Your task to perform on an android device: add a label to a message in the gmail app Image 0: 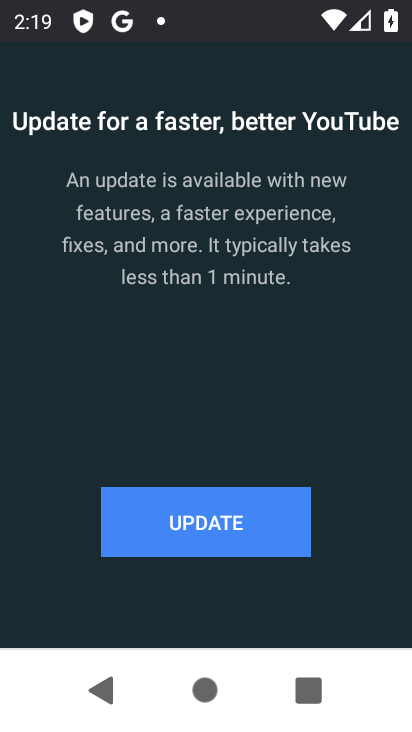
Step 0: press home button
Your task to perform on an android device: add a label to a message in the gmail app Image 1: 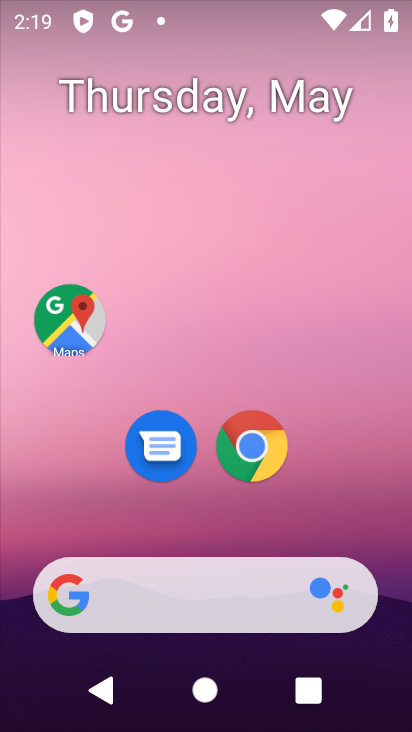
Step 1: drag from (206, 533) to (218, 0)
Your task to perform on an android device: add a label to a message in the gmail app Image 2: 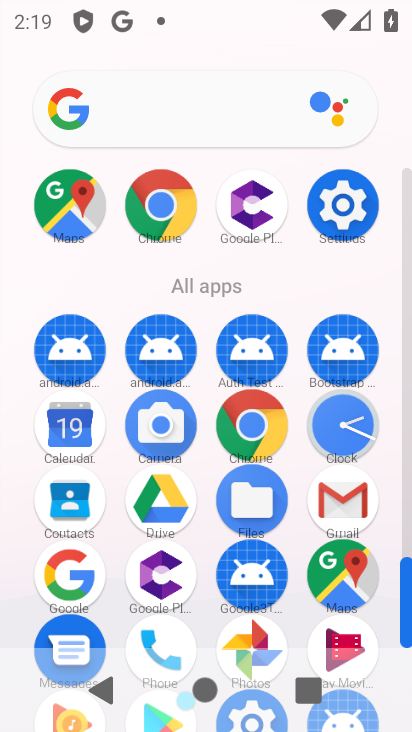
Step 2: click (333, 510)
Your task to perform on an android device: add a label to a message in the gmail app Image 3: 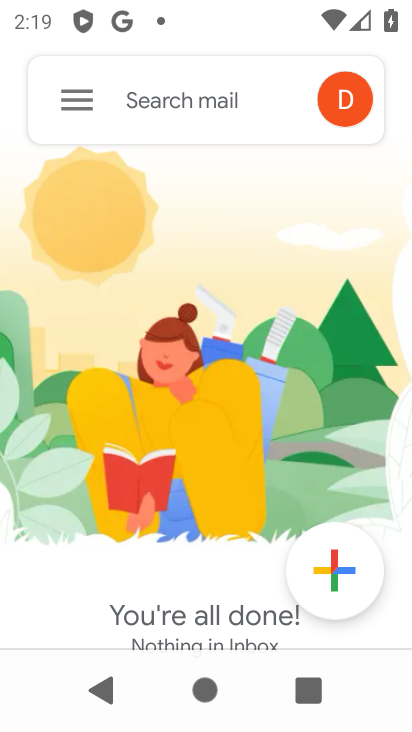
Step 3: click (69, 109)
Your task to perform on an android device: add a label to a message in the gmail app Image 4: 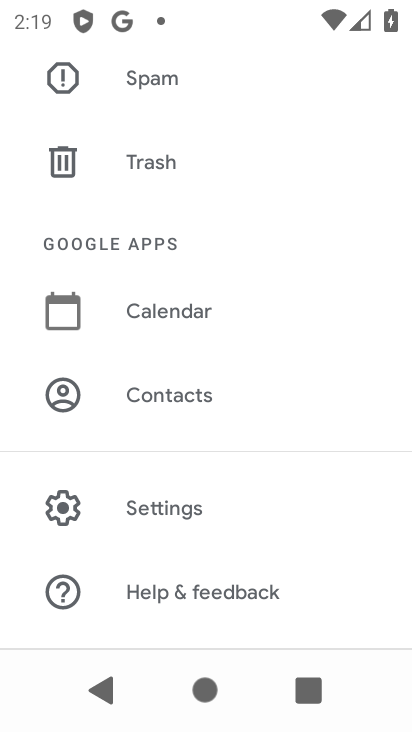
Step 4: drag from (158, 83) to (113, 304)
Your task to perform on an android device: add a label to a message in the gmail app Image 5: 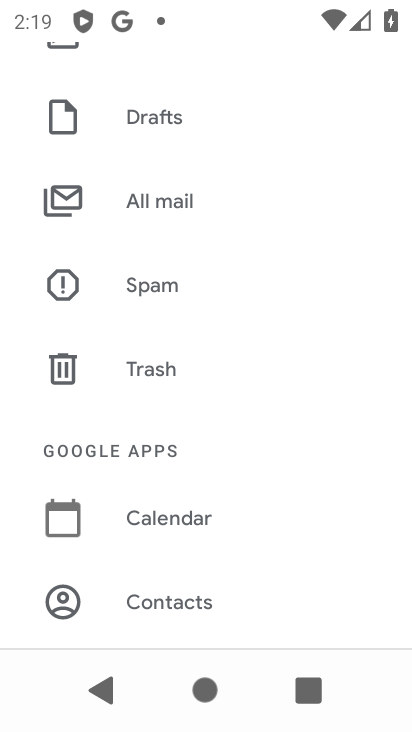
Step 5: click (162, 180)
Your task to perform on an android device: add a label to a message in the gmail app Image 6: 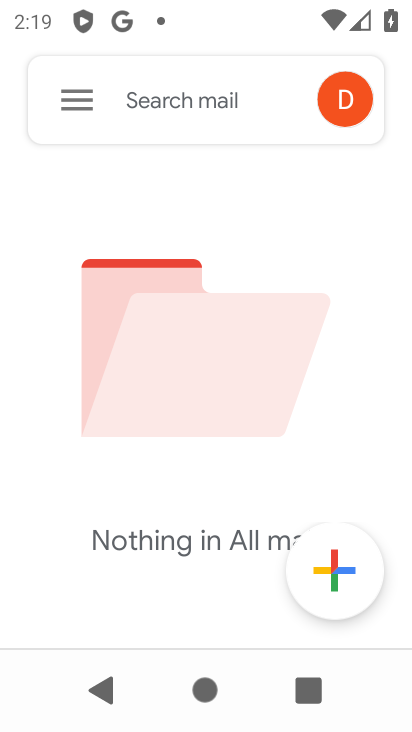
Step 6: task complete